Your task to perform on an android device: toggle notifications settings in the gmail app Image 0: 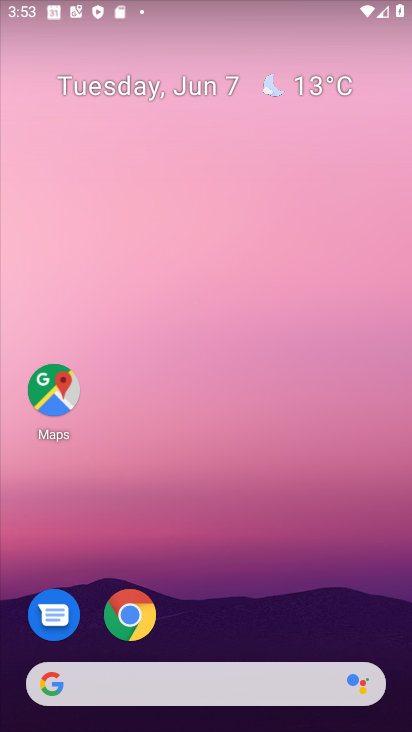
Step 0: drag from (244, 678) to (152, 55)
Your task to perform on an android device: toggle notifications settings in the gmail app Image 1: 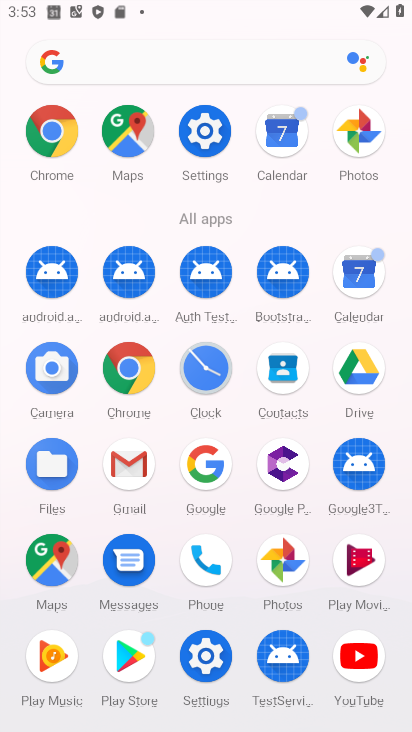
Step 1: click (122, 470)
Your task to perform on an android device: toggle notifications settings in the gmail app Image 2: 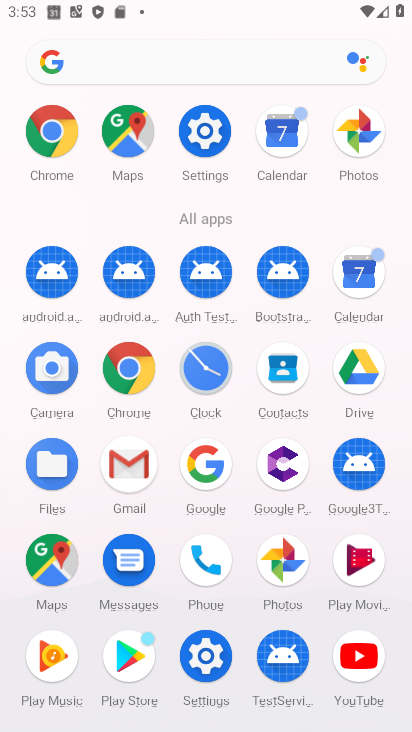
Step 2: click (123, 469)
Your task to perform on an android device: toggle notifications settings in the gmail app Image 3: 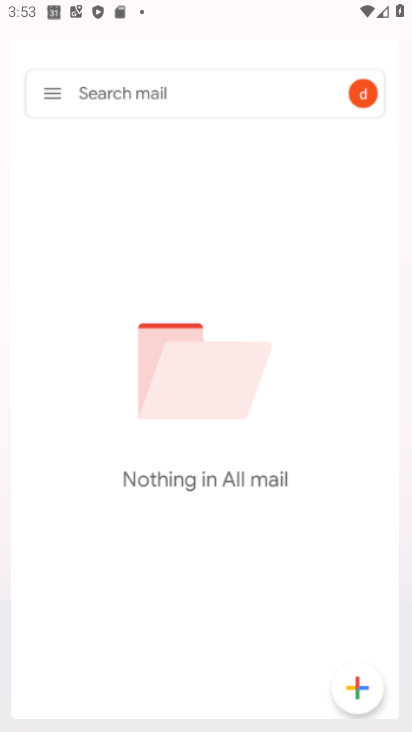
Step 3: click (127, 469)
Your task to perform on an android device: toggle notifications settings in the gmail app Image 4: 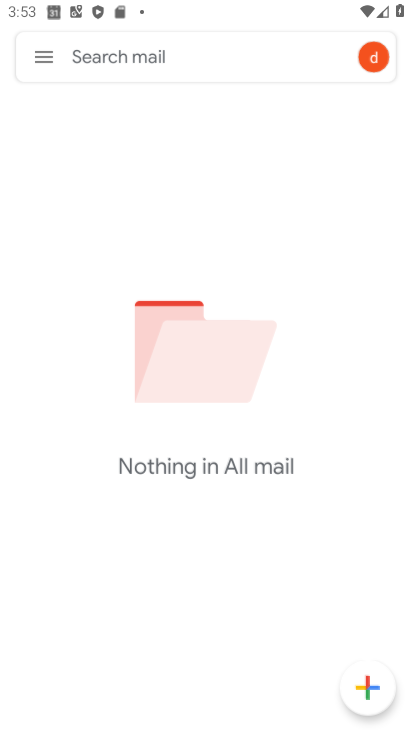
Step 4: click (126, 468)
Your task to perform on an android device: toggle notifications settings in the gmail app Image 5: 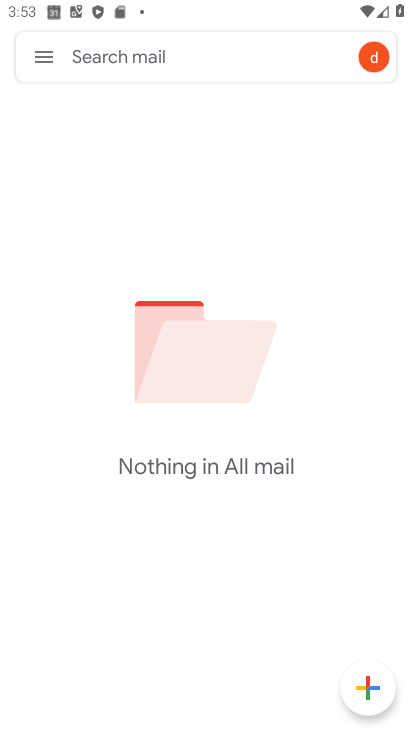
Step 5: click (125, 466)
Your task to perform on an android device: toggle notifications settings in the gmail app Image 6: 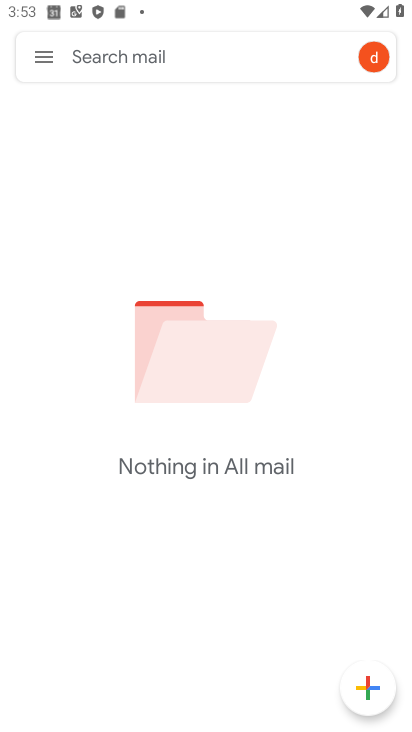
Step 6: click (123, 465)
Your task to perform on an android device: toggle notifications settings in the gmail app Image 7: 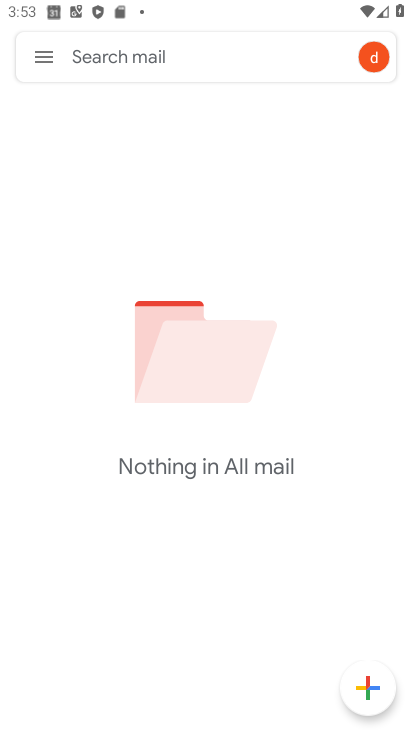
Step 7: drag from (52, 52) to (68, 373)
Your task to perform on an android device: toggle notifications settings in the gmail app Image 8: 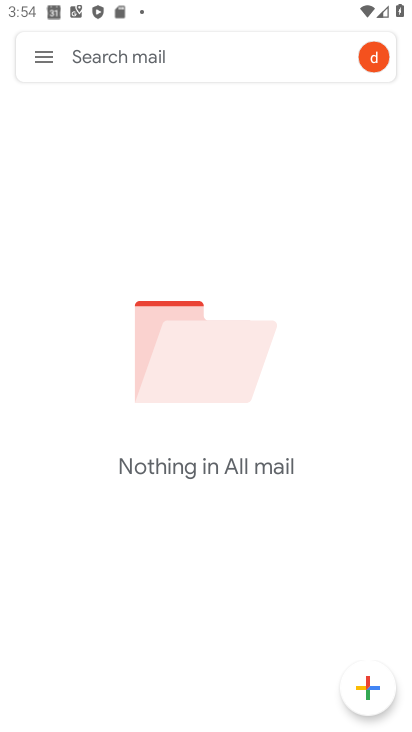
Step 8: drag from (45, 53) to (68, 341)
Your task to perform on an android device: toggle notifications settings in the gmail app Image 9: 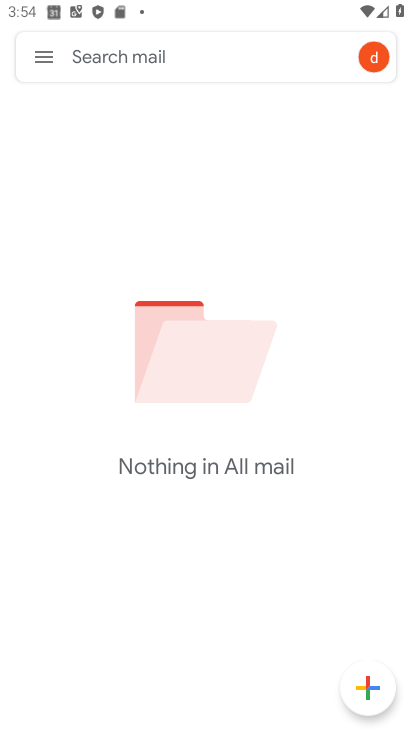
Step 9: click (37, 60)
Your task to perform on an android device: toggle notifications settings in the gmail app Image 10: 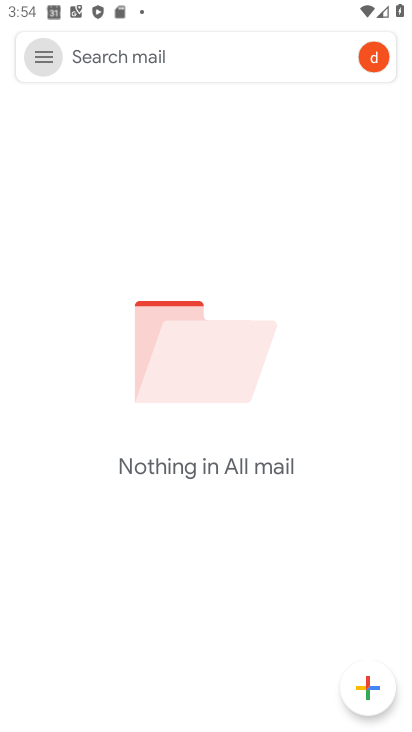
Step 10: click (36, 59)
Your task to perform on an android device: toggle notifications settings in the gmail app Image 11: 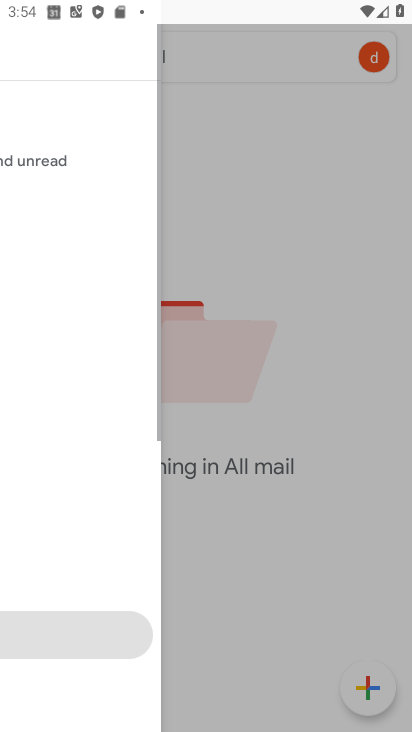
Step 11: click (36, 59)
Your task to perform on an android device: toggle notifications settings in the gmail app Image 12: 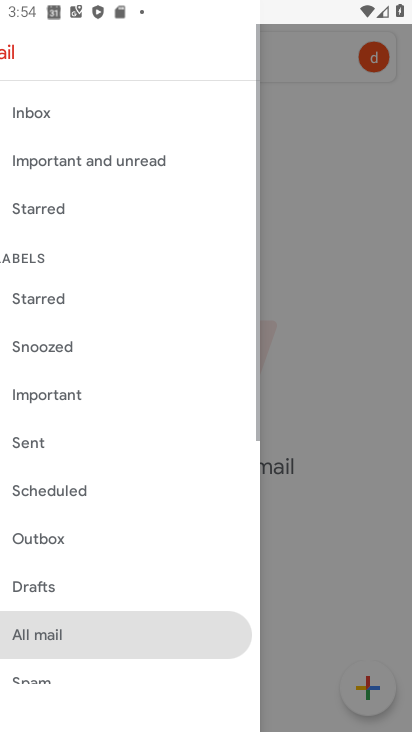
Step 12: click (36, 59)
Your task to perform on an android device: toggle notifications settings in the gmail app Image 13: 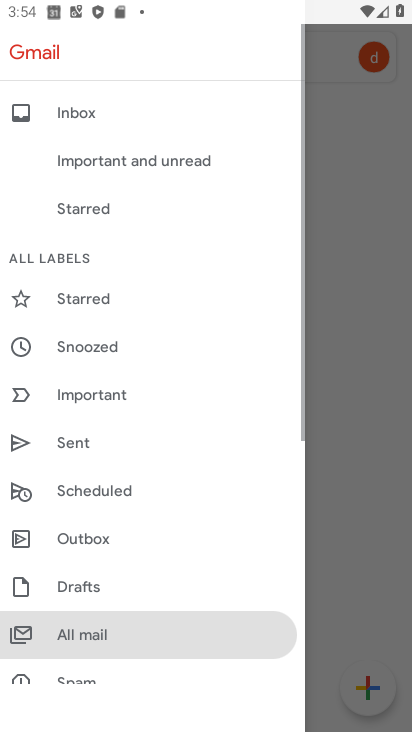
Step 13: click (37, 59)
Your task to perform on an android device: toggle notifications settings in the gmail app Image 14: 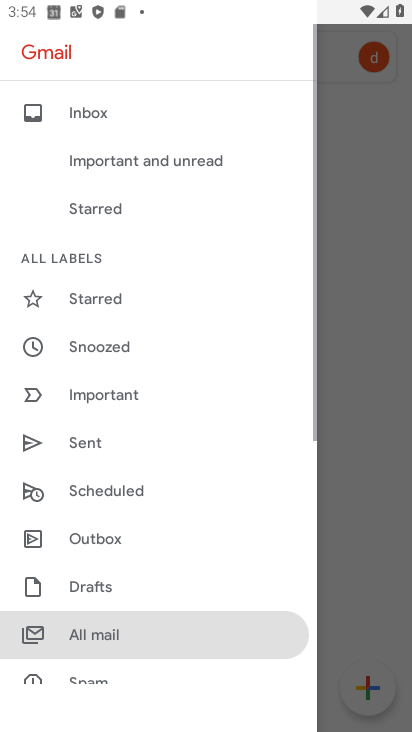
Step 14: drag from (37, 59) to (101, 701)
Your task to perform on an android device: toggle notifications settings in the gmail app Image 15: 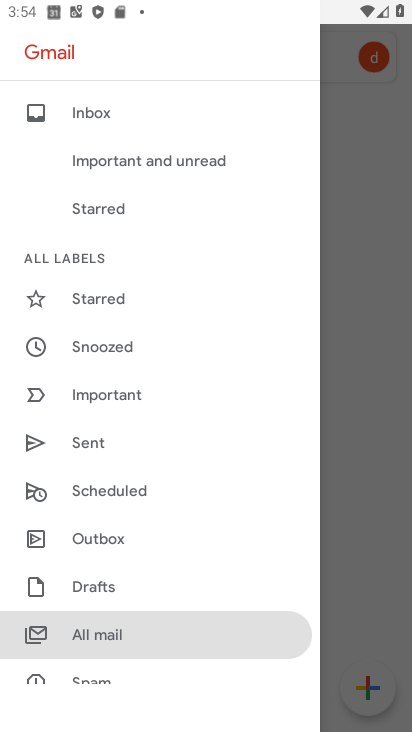
Step 15: drag from (169, 445) to (148, 291)
Your task to perform on an android device: toggle notifications settings in the gmail app Image 16: 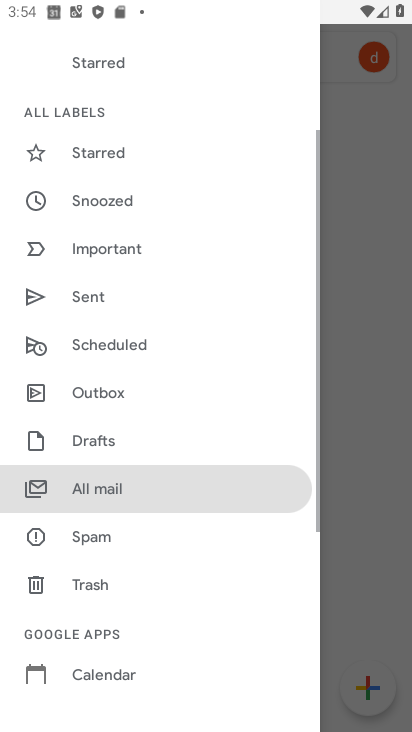
Step 16: drag from (181, 477) to (119, 137)
Your task to perform on an android device: toggle notifications settings in the gmail app Image 17: 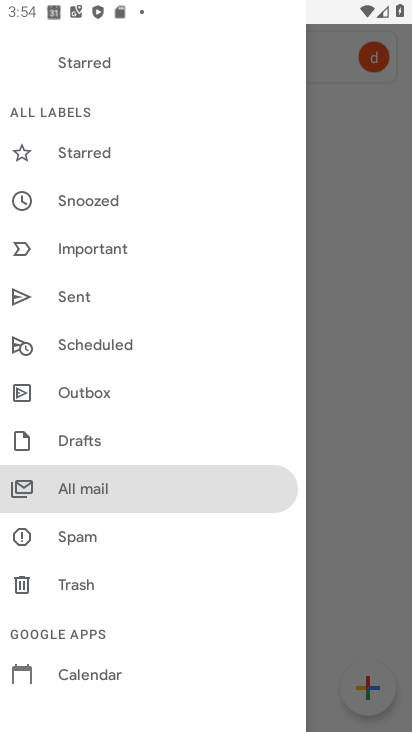
Step 17: drag from (166, 429) to (140, 136)
Your task to perform on an android device: toggle notifications settings in the gmail app Image 18: 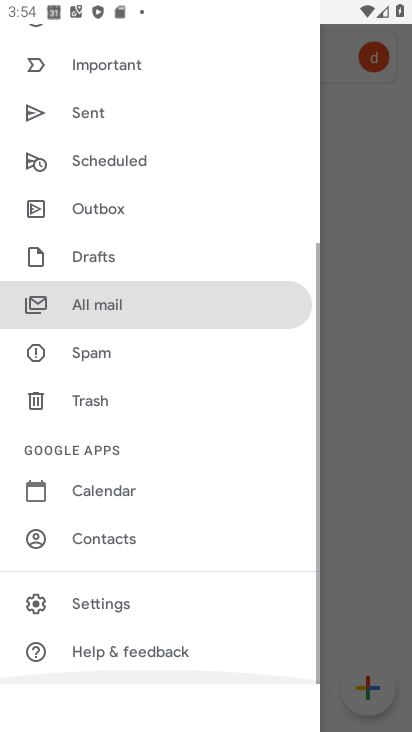
Step 18: drag from (152, 565) to (79, 230)
Your task to perform on an android device: toggle notifications settings in the gmail app Image 19: 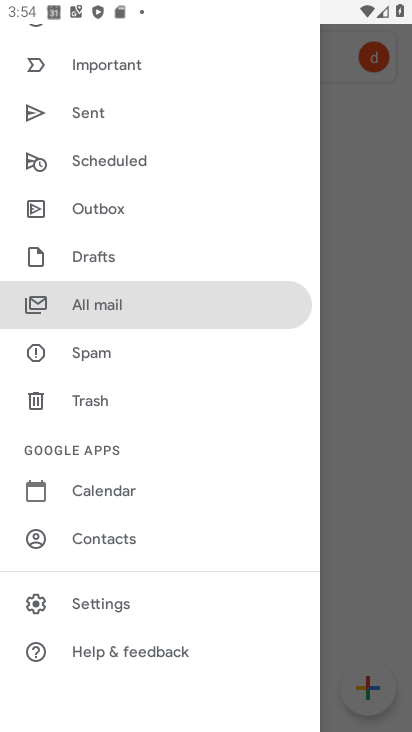
Step 19: drag from (53, 609) to (60, 348)
Your task to perform on an android device: toggle notifications settings in the gmail app Image 20: 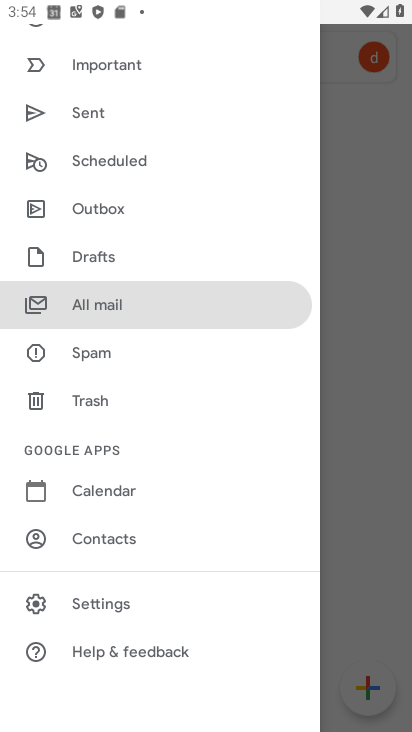
Step 20: click (60, 601)
Your task to perform on an android device: toggle notifications settings in the gmail app Image 21: 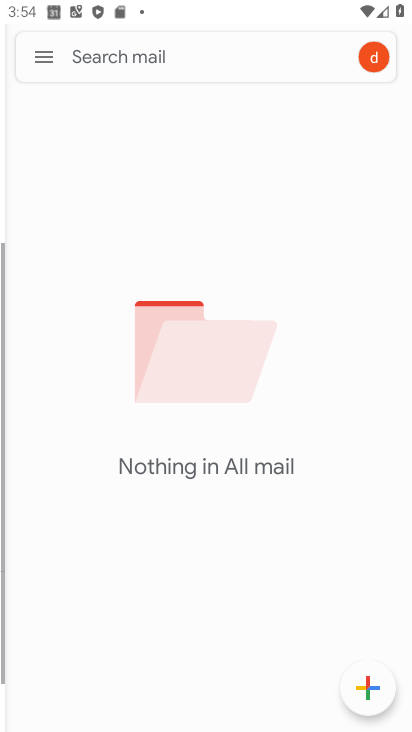
Step 21: click (58, 601)
Your task to perform on an android device: toggle notifications settings in the gmail app Image 22: 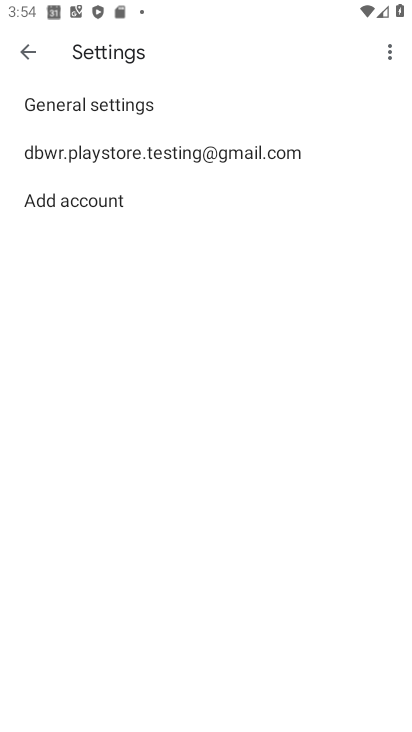
Step 22: click (138, 143)
Your task to perform on an android device: toggle notifications settings in the gmail app Image 23: 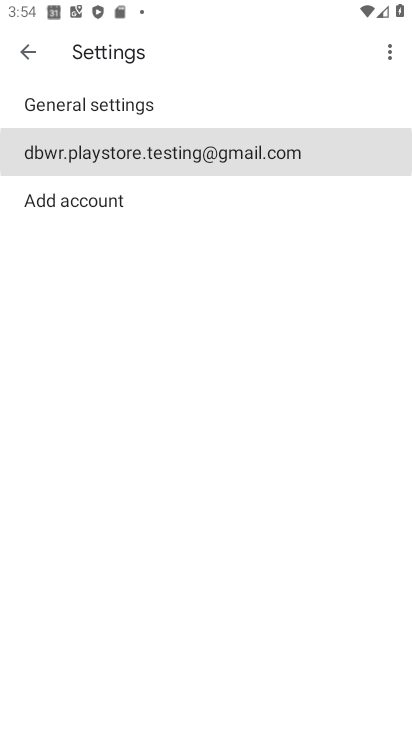
Step 23: click (138, 143)
Your task to perform on an android device: toggle notifications settings in the gmail app Image 24: 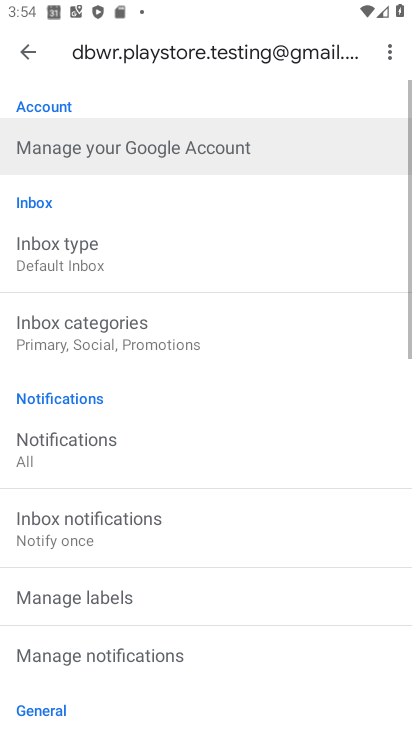
Step 24: click (137, 144)
Your task to perform on an android device: toggle notifications settings in the gmail app Image 25: 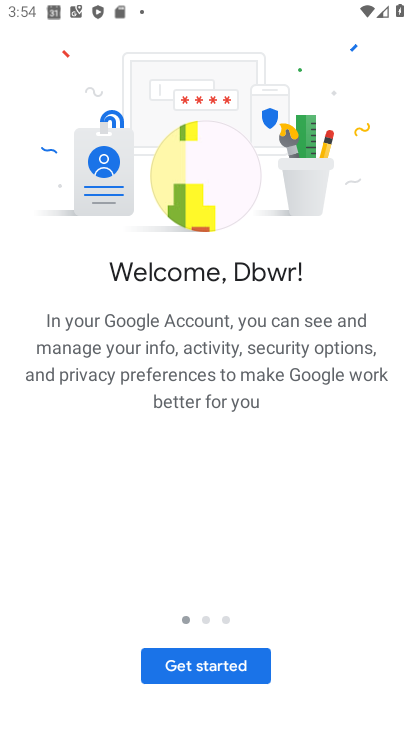
Step 25: click (219, 669)
Your task to perform on an android device: toggle notifications settings in the gmail app Image 26: 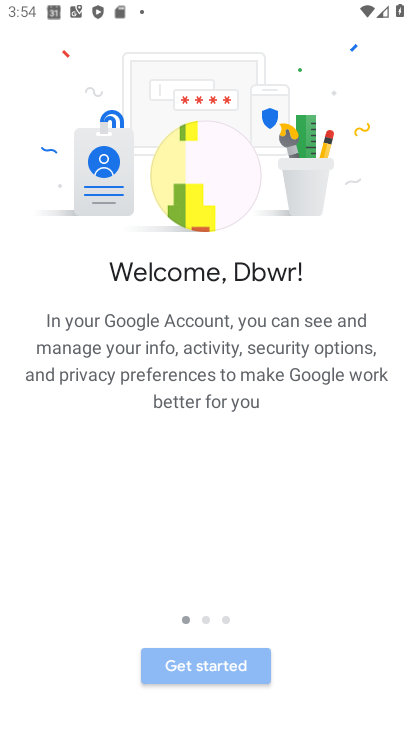
Step 26: click (219, 667)
Your task to perform on an android device: toggle notifications settings in the gmail app Image 27: 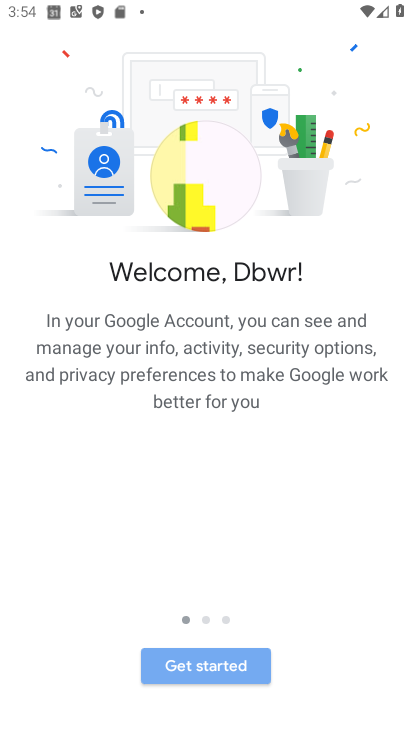
Step 27: click (219, 667)
Your task to perform on an android device: toggle notifications settings in the gmail app Image 28: 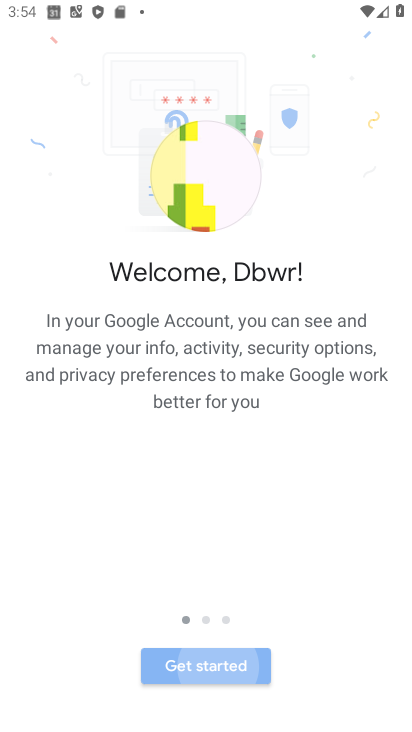
Step 28: click (219, 665)
Your task to perform on an android device: toggle notifications settings in the gmail app Image 29: 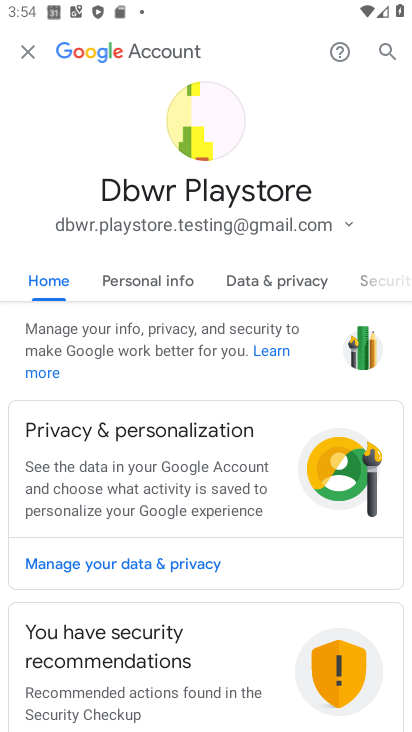
Step 29: task complete